Your task to perform on an android device: Open Google Maps Image 0: 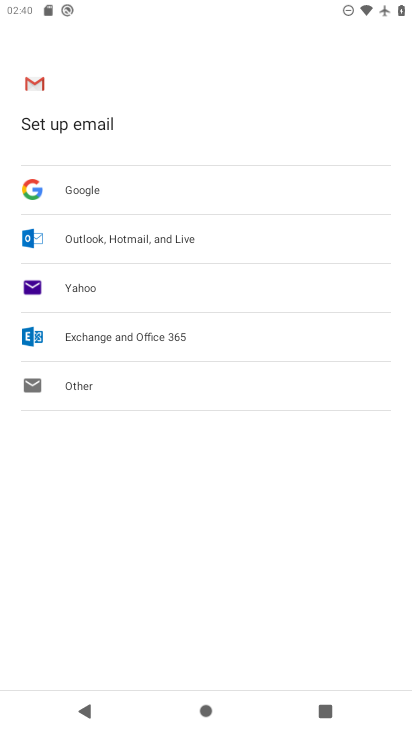
Step 0: press home button
Your task to perform on an android device: Open Google Maps Image 1: 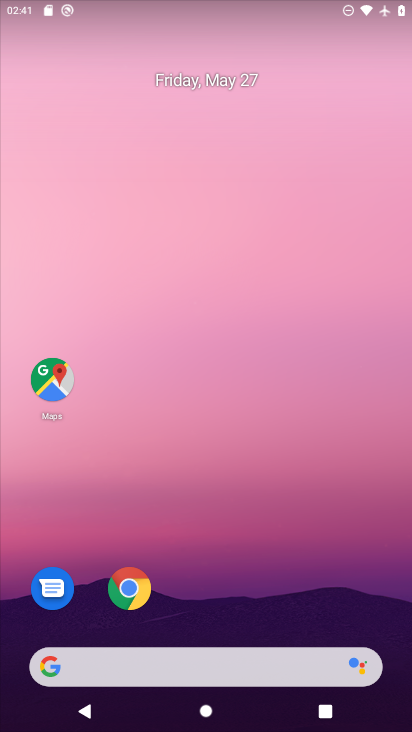
Step 1: click (55, 378)
Your task to perform on an android device: Open Google Maps Image 2: 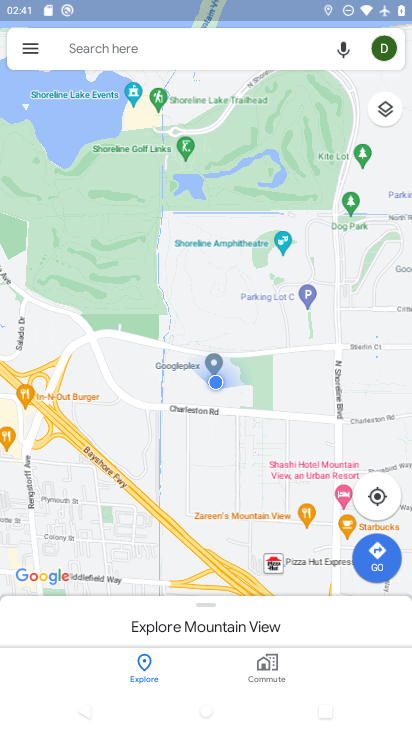
Step 2: task complete